Your task to perform on an android device: open app "Flipkart Online Shopping App" (install if not already installed) Image 0: 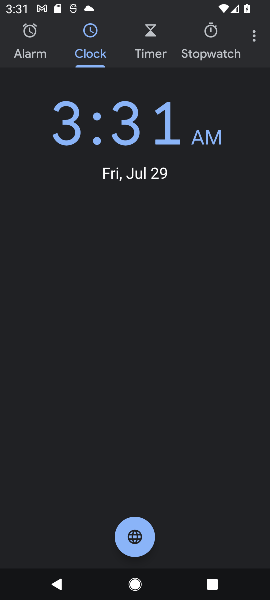
Step 0: press home button
Your task to perform on an android device: open app "Flipkart Online Shopping App" (install if not already installed) Image 1: 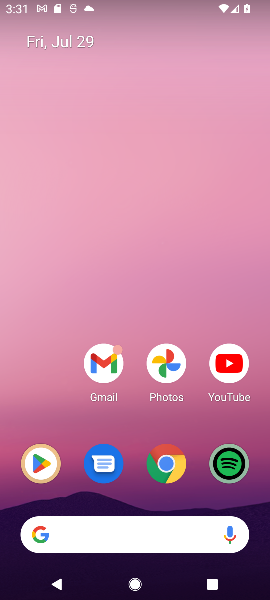
Step 1: drag from (96, 534) to (156, 137)
Your task to perform on an android device: open app "Flipkart Online Shopping App" (install if not already installed) Image 2: 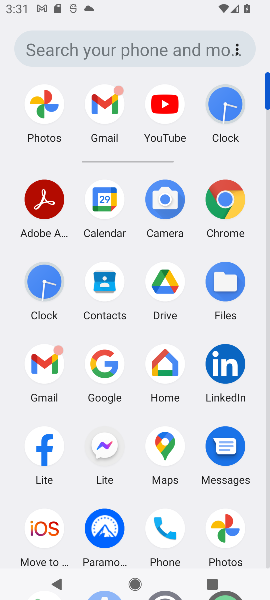
Step 2: drag from (138, 497) to (144, 278)
Your task to perform on an android device: open app "Flipkart Online Shopping App" (install if not already installed) Image 3: 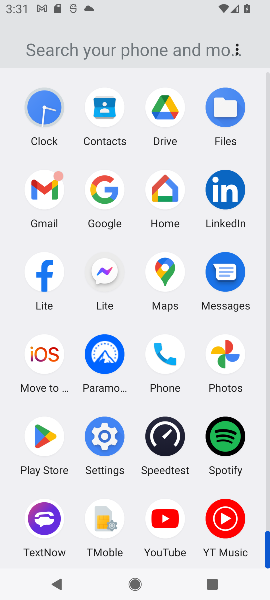
Step 3: click (49, 437)
Your task to perform on an android device: open app "Flipkart Online Shopping App" (install if not already installed) Image 4: 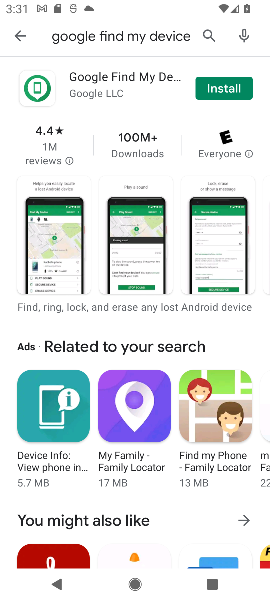
Step 4: click (209, 33)
Your task to perform on an android device: open app "Flipkart Online Shopping App" (install if not already installed) Image 5: 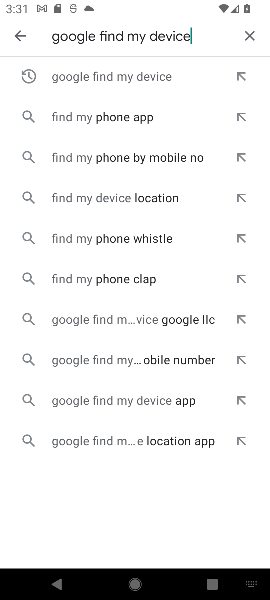
Step 5: click (247, 39)
Your task to perform on an android device: open app "Flipkart Online Shopping App" (install if not already installed) Image 6: 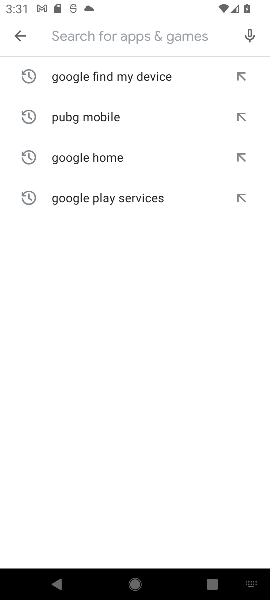
Step 6: click (117, 45)
Your task to perform on an android device: open app "Flipkart Online Shopping App" (install if not already installed) Image 7: 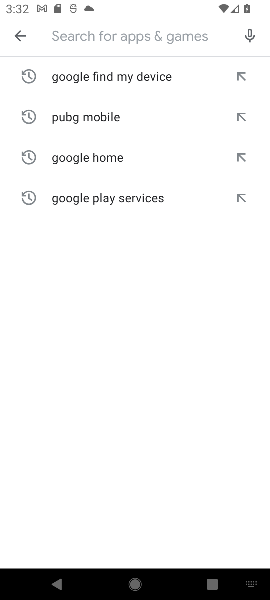
Step 7: type "Flipkart Online Shopping App"
Your task to perform on an android device: open app "Flipkart Online Shopping App" (install if not already installed) Image 8: 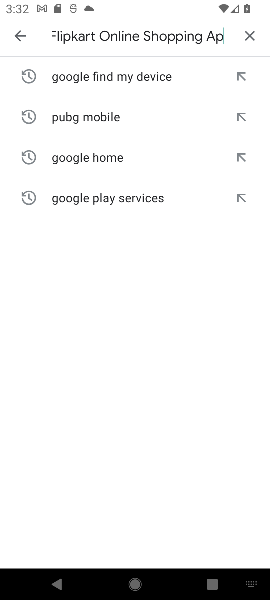
Step 8: type ""
Your task to perform on an android device: open app "Flipkart Online Shopping App" (install if not already installed) Image 9: 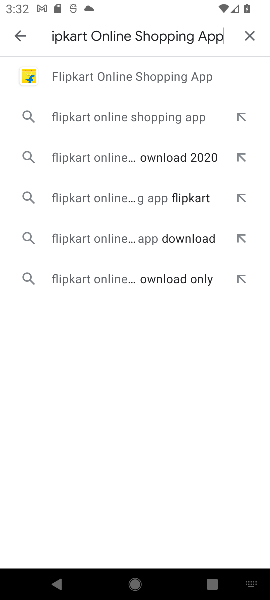
Step 9: click (157, 84)
Your task to perform on an android device: open app "Flipkart Online Shopping App" (install if not already installed) Image 10: 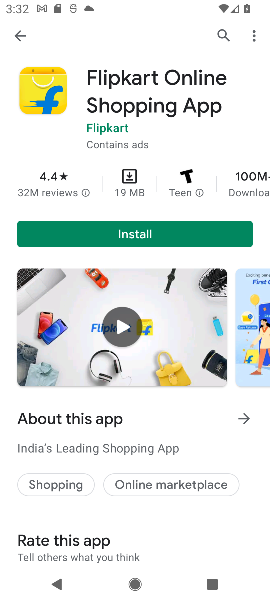
Step 10: click (138, 234)
Your task to perform on an android device: open app "Flipkart Online Shopping App" (install if not already installed) Image 11: 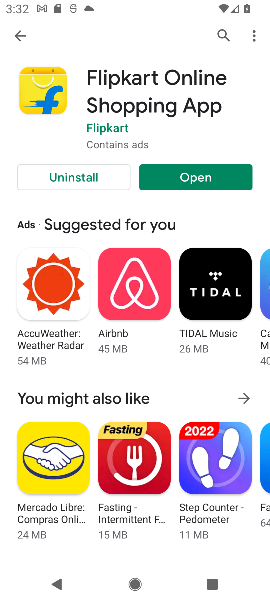
Step 11: click (195, 177)
Your task to perform on an android device: open app "Flipkart Online Shopping App" (install if not already installed) Image 12: 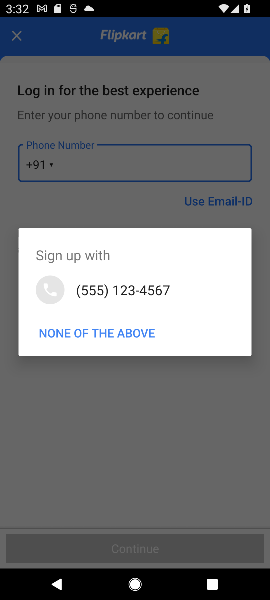
Step 12: task complete